Your task to perform on an android device: allow notifications from all sites in the chrome app Image 0: 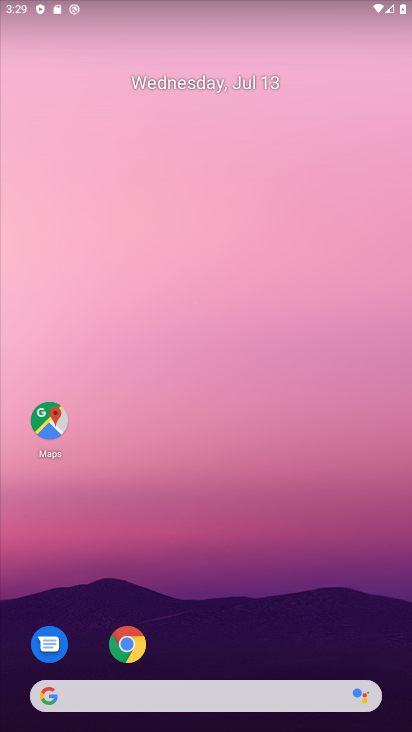
Step 0: click (130, 643)
Your task to perform on an android device: allow notifications from all sites in the chrome app Image 1: 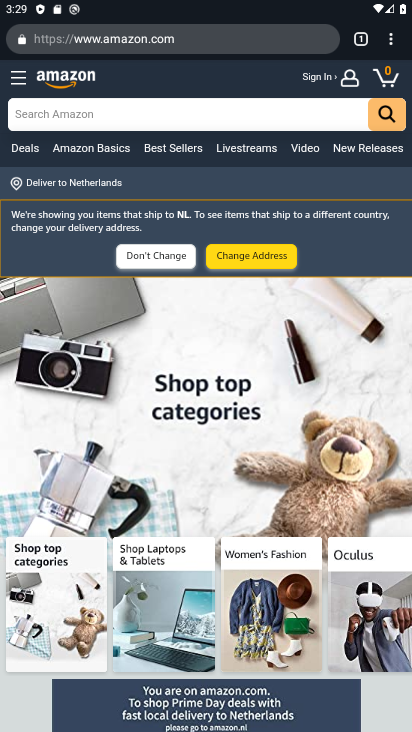
Step 1: click (384, 35)
Your task to perform on an android device: allow notifications from all sites in the chrome app Image 2: 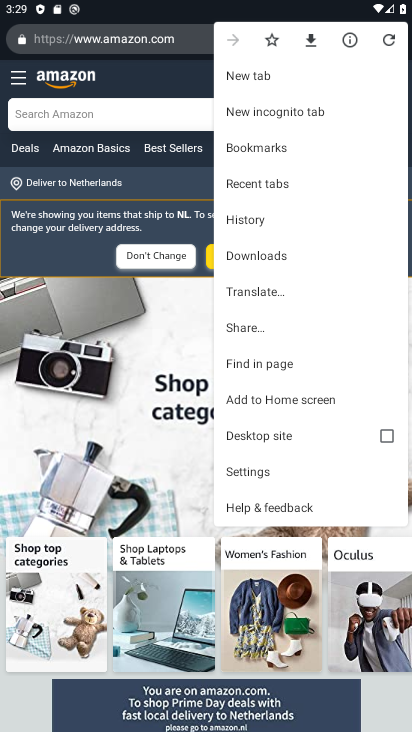
Step 2: click (281, 470)
Your task to perform on an android device: allow notifications from all sites in the chrome app Image 3: 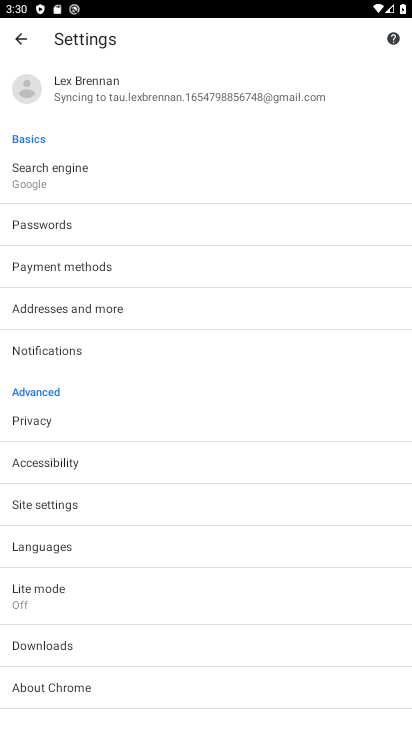
Step 3: click (94, 351)
Your task to perform on an android device: allow notifications from all sites in the chrome app Image 4: 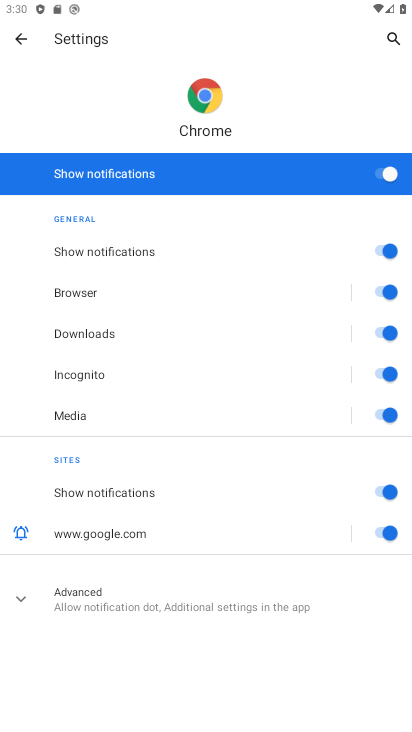
Step 4: click (26, 32)
Your task to perform on an android device: allow notifications from all sites in the chrome app Image 5: 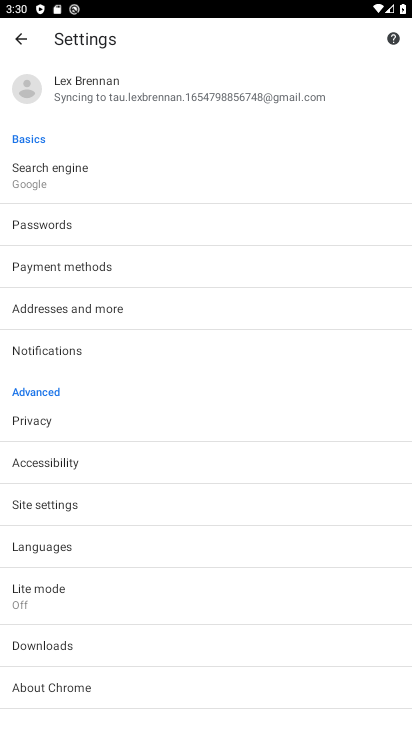
Step 5: click (115, 500)
Your task to perform on an android device: allow notifications from all sites in the chrome app Image 6: 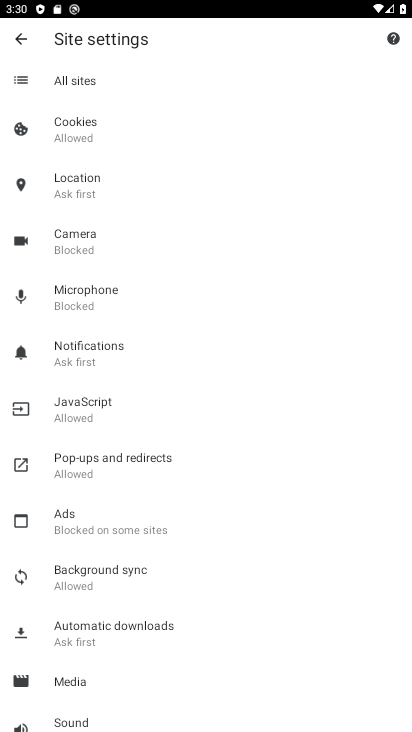
Step 6: click (100, 79)
Your task to perform on an android device: allow notifications from all sites in the chrome app Image 7: 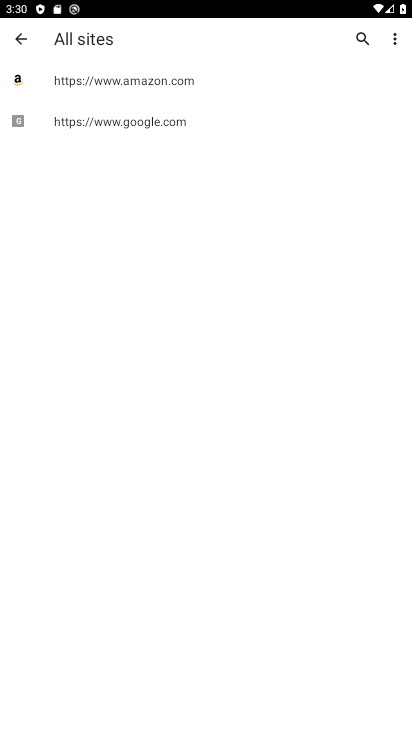
Step 7: click (180, 127)
Your task to perform on an android device: allow notifications from all sites in the chrome app Image 8: 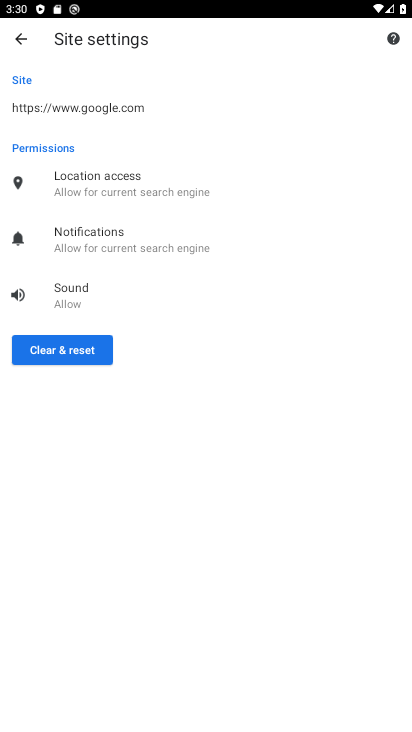
Step 8: click (122, 243)
Your task to perform on an android device: allow notifications from all sites in the chrome app Image 9: 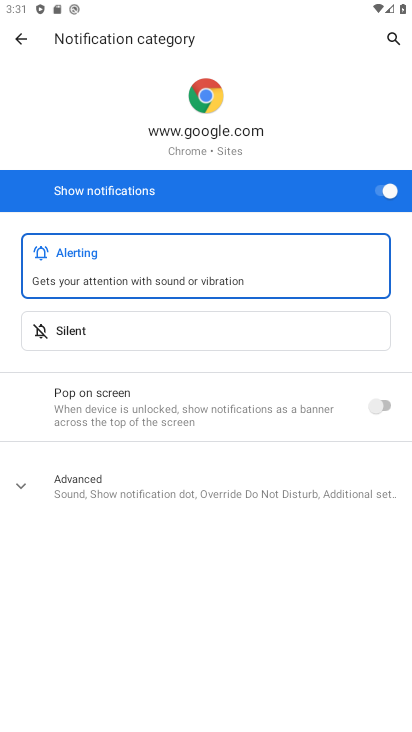
Step 9: task complete